Your task to perform on an android device: What's the weather like in Rio de Janeiro? Image 0: 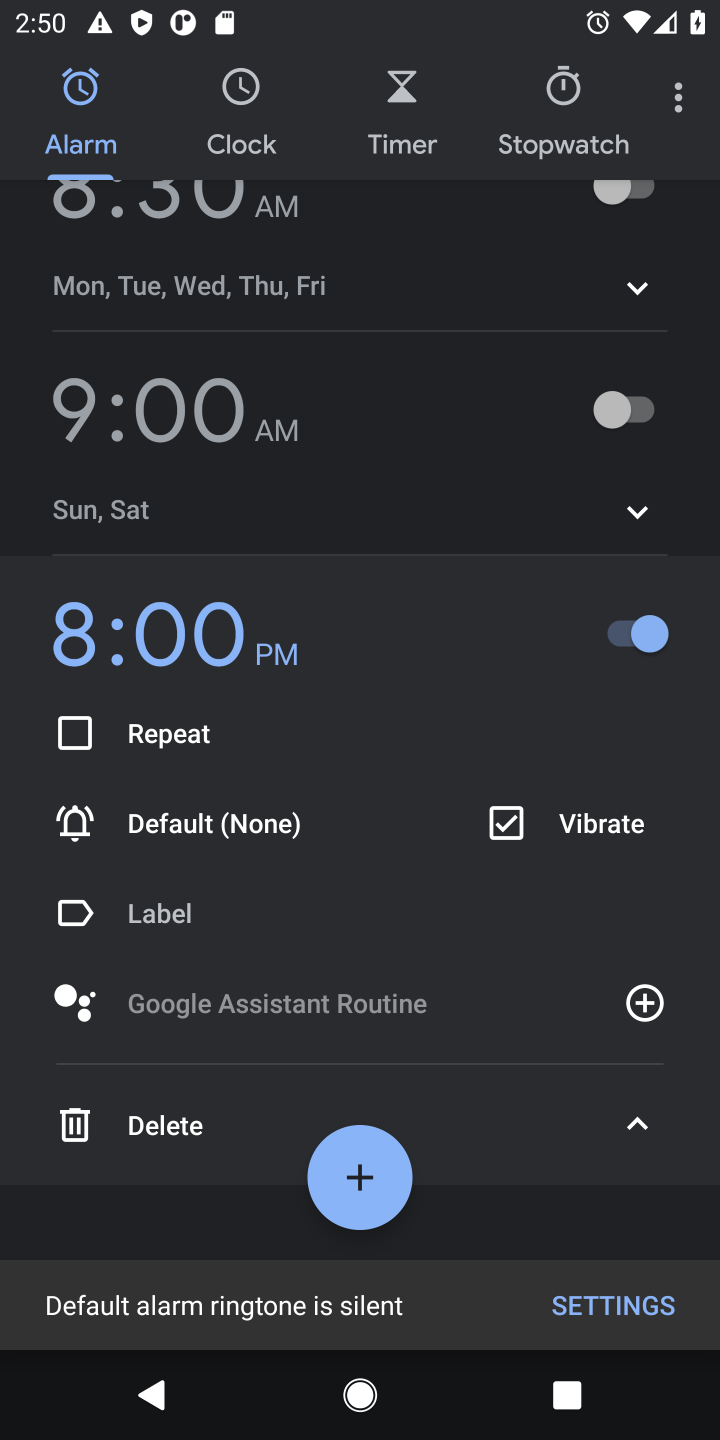
Step 0: press home button
Your task to perform on an android device: What's the weather like in Rio de Janeiro? Image 1: 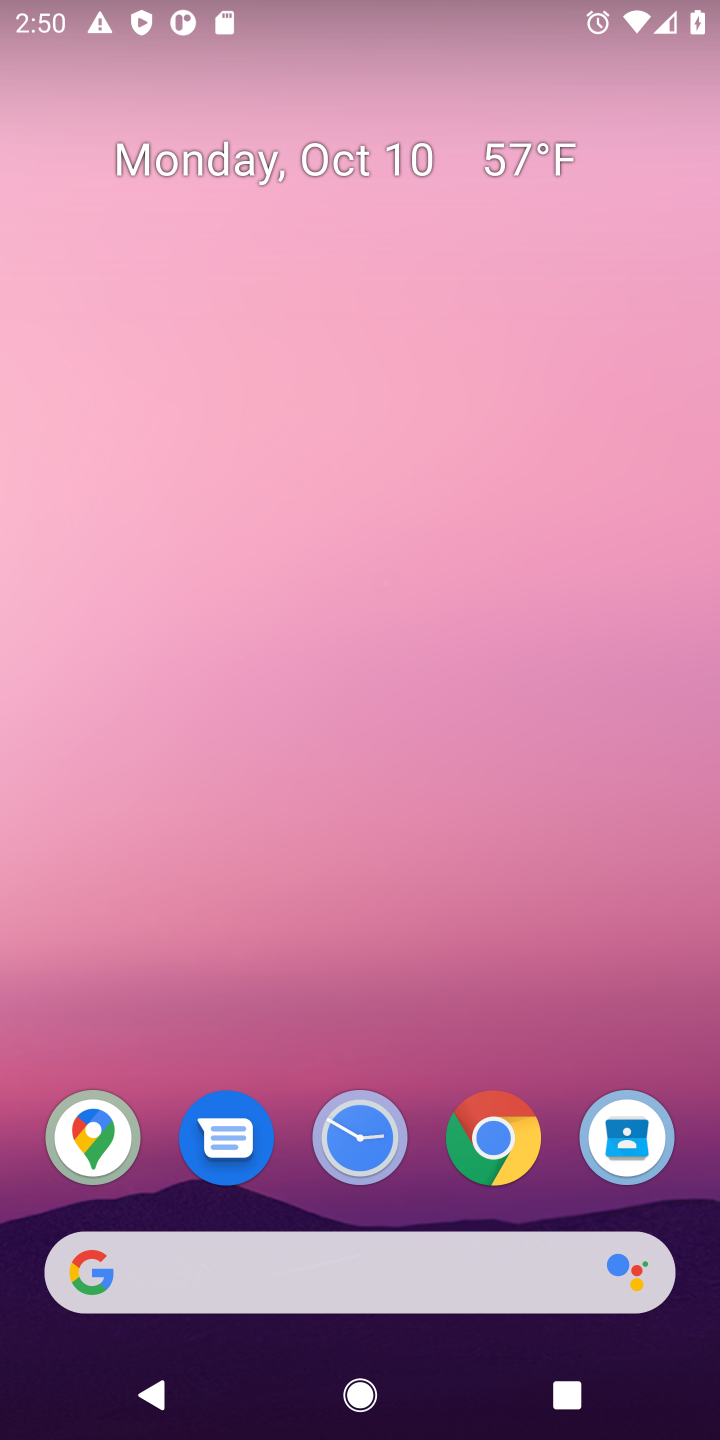
Step 1: click (321, 1278)
Your task to perform on an android device: What's the weather like in Rio de Janeiro? Image 2: 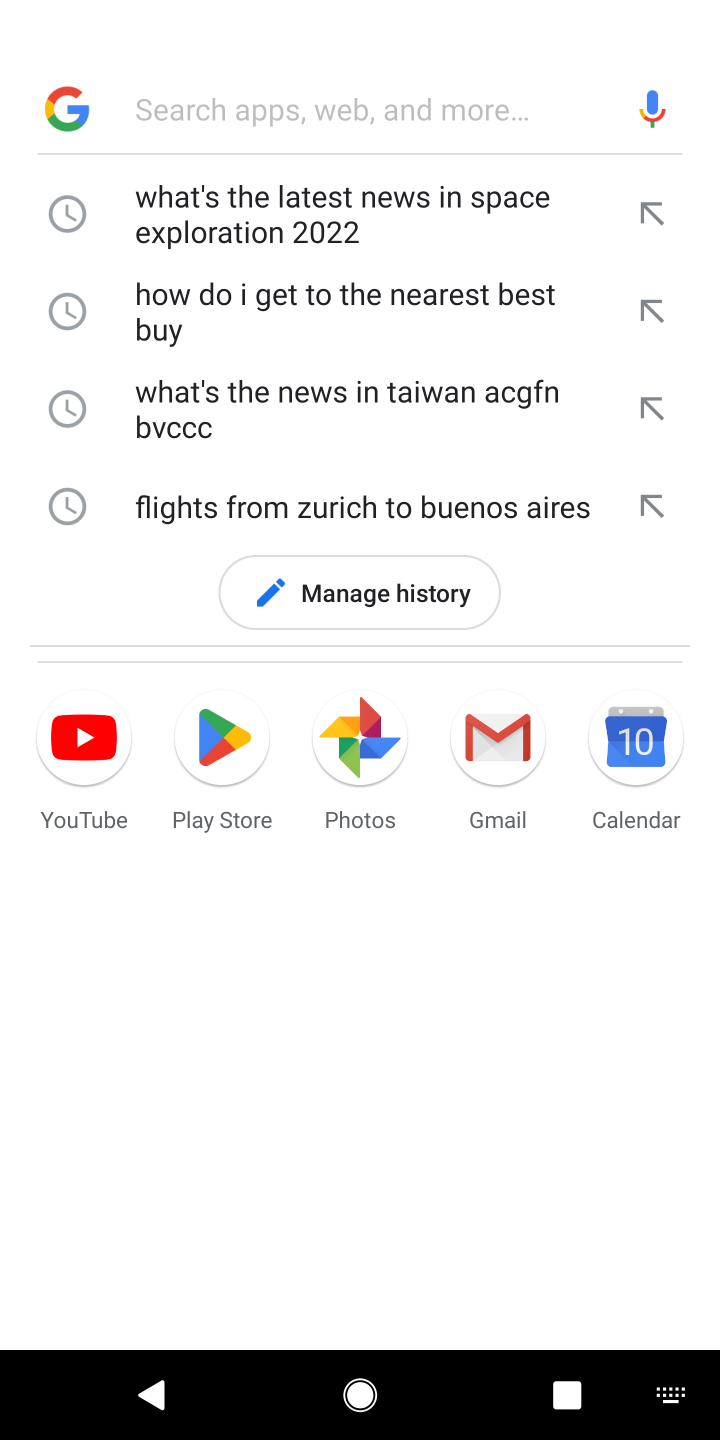
Step 2: type "whats the weather like in rio de janeiro"
Your task to perform on an android device: What's the weather like in Rio de Janeiro? Image 3: 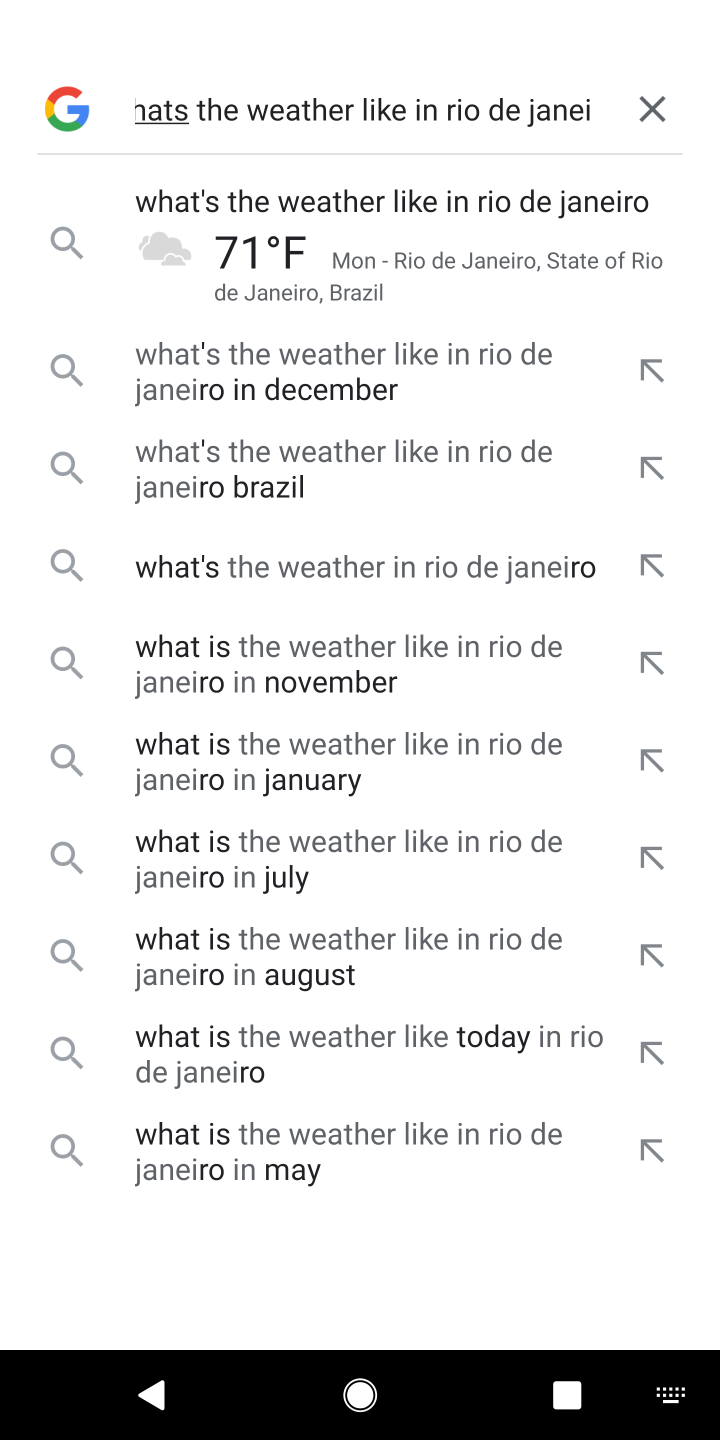
Step 3: click (389, 205)
Your task to perform on an android device: What's the weather like in Rio de Janeiro? Image 4: 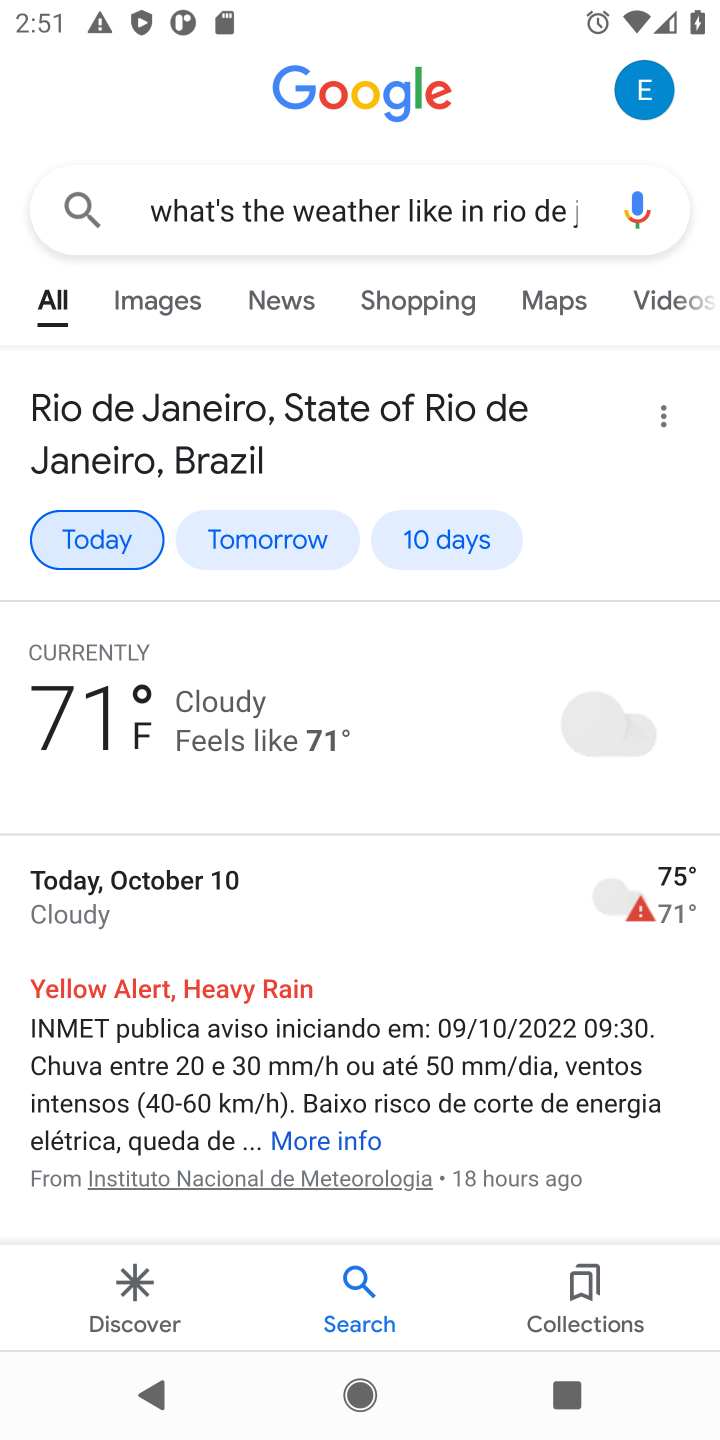
Step 4: task complete